Your task to perform on an android device: search for starred emails in the gmail app Image 0: 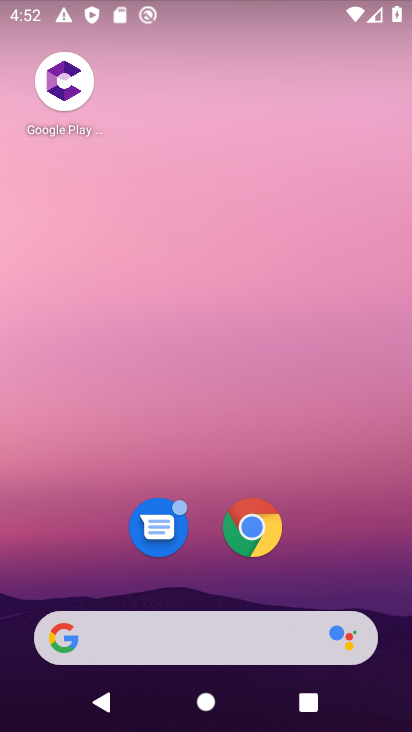
Step 0: drag from (211, 630) to (159, 85)
Your task to perform on an android device: search for starred emails in the gmail app Image 1: 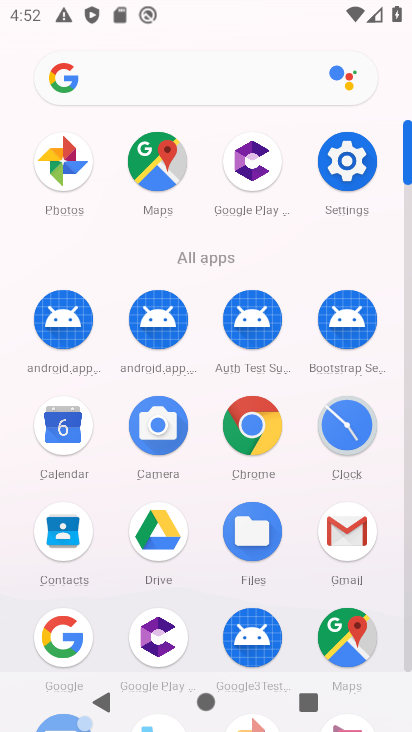
Step 1: click (348, 521)
Your task to perform on an android device: search for starred emails in the gmail app Image 2: 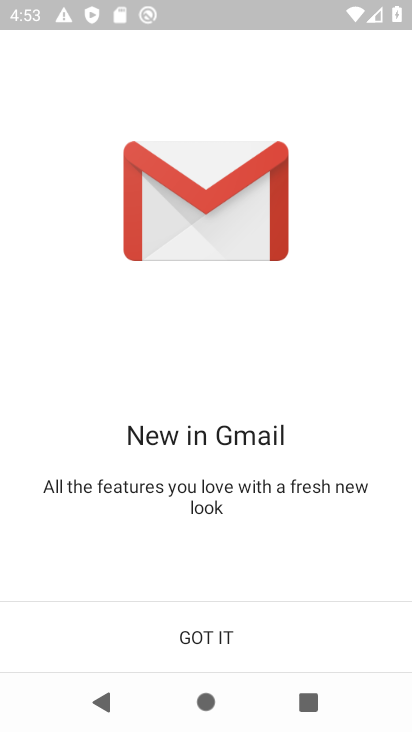
Step 2: click (219, 622)
Your task to perform on an android device: search for starred emails in the gmail app Image 3: 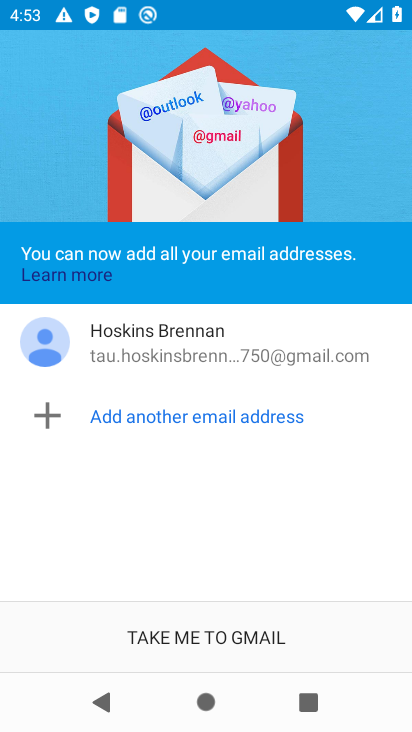
Step 3: click (219, 622)
Your task to perform on an android device: search for starred emails in the gmail app Image 4: 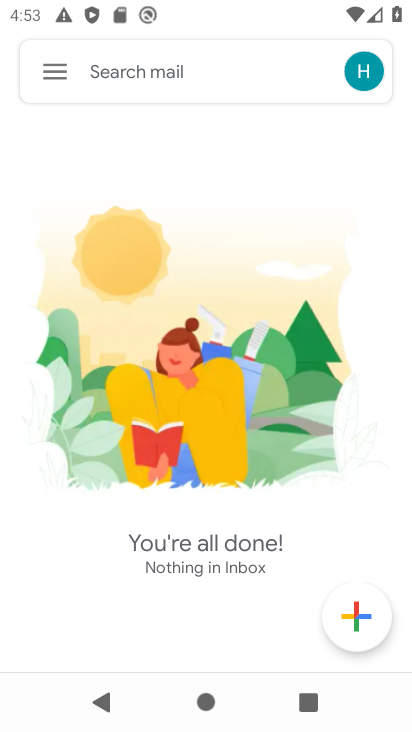
Step 4: click (58, 77)
Your task to perform on an android device: search for starred emails in the gmail app Image 5: 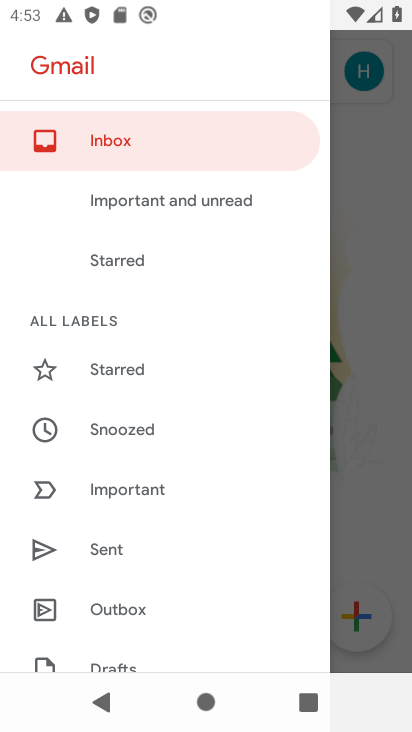
Step 5: click (120, 360)
Your task to perform on an android device: search for starred emails in the gmail app Image 6: 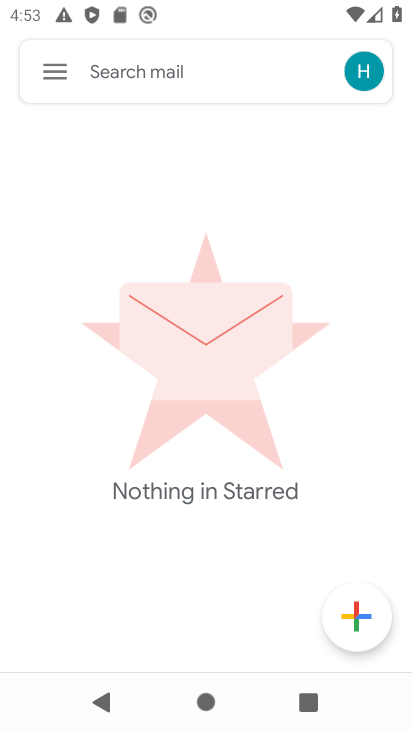
Step 6: task complete